Your task to perform on an android device: turn on data saver in the chrome app Image 0: 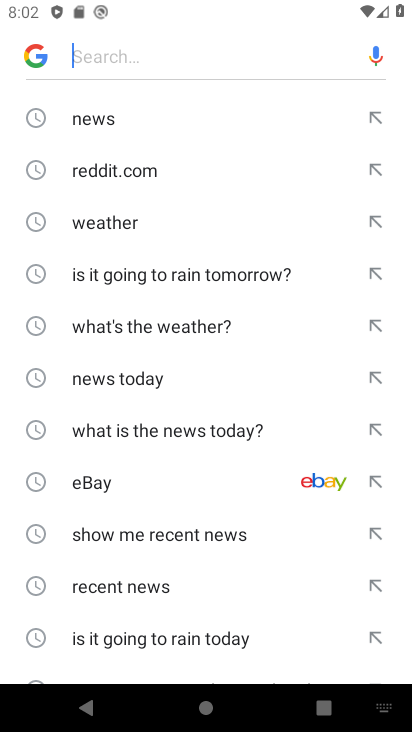
Step 0: press home button
Your task to perform on an android device: turn on data saver in the chrome app Image 1: 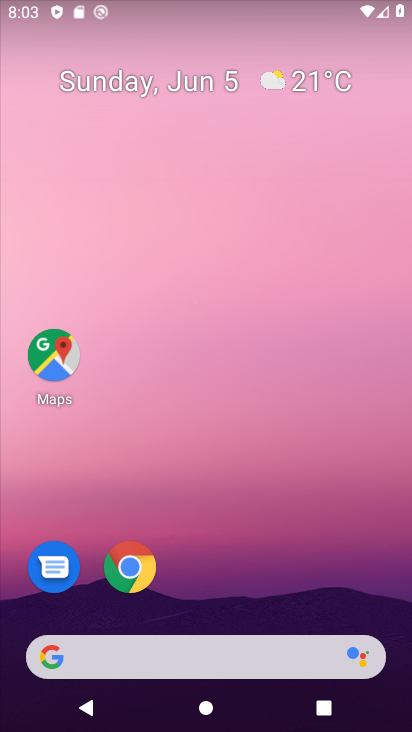
Step 1: click (119, 570)
Your task to perform on an android device: turn on data saver in the chrome app Image 2: 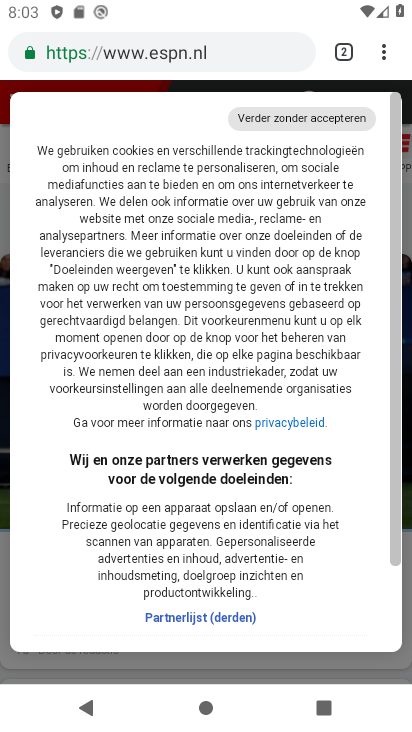
Step 2: click (378, 52)
Your task to perform on an android device: turn on data saver in the chrome app Image 3: 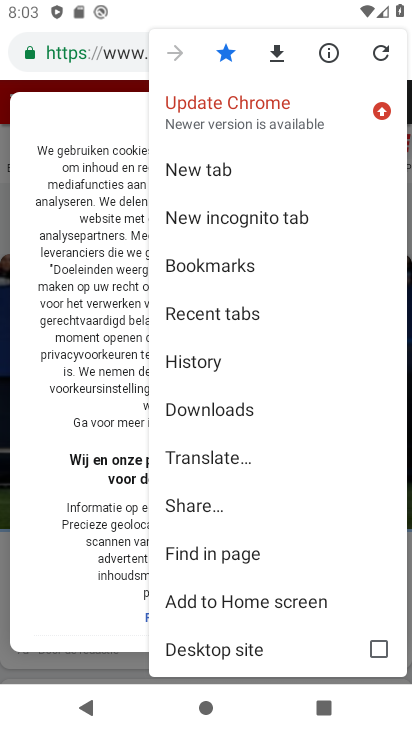
Step 3: drag from (223, 639) to (219, 340)
Your task to perform on an android device: turn on data saver in the chrome app Image 4: 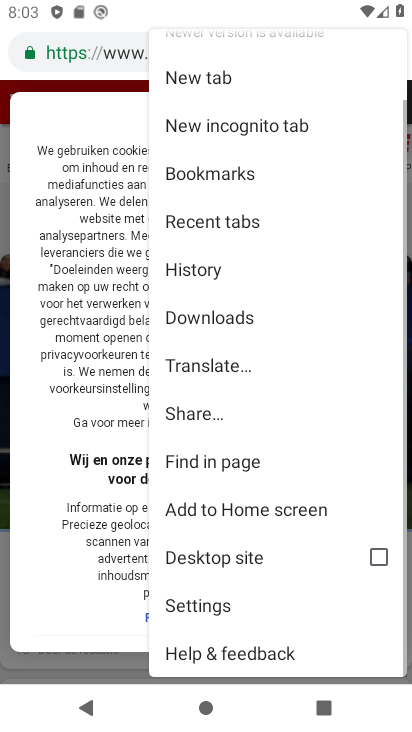
Step 4: click (211, 608)
Your task to perform on an android device: turn on data saver in the chrome app Image 5: 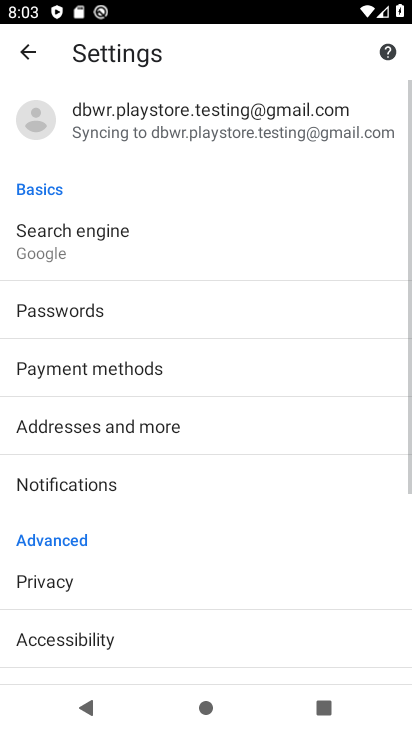
Step 5: drag from (161, 652) to (152, 399)
Your task to perform on an android device: turn on data saver in the chrome app Image 6: 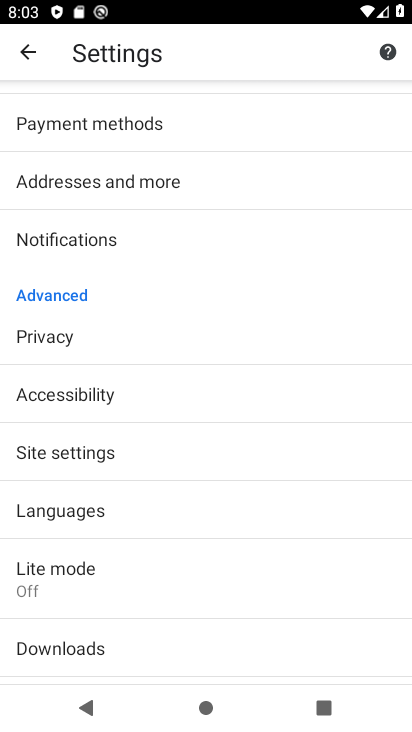
Step 6: click (56, 567)
Your task to perform on an android device: turn on data saver in the chrome app Image 7: 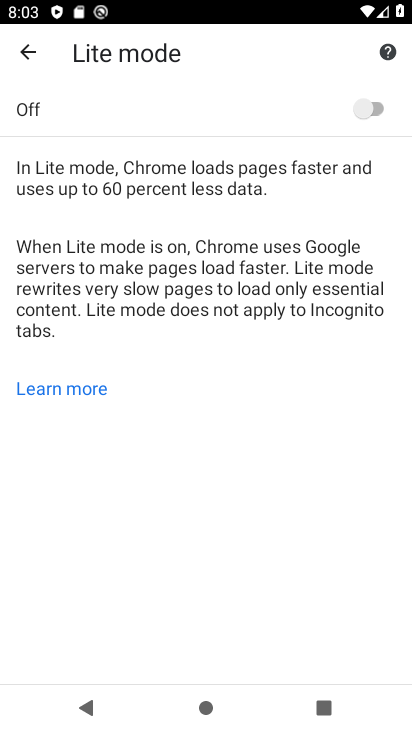
Step 7: click (370, 109)
Your task to perform on an android device: turn on data saver in the chrome app Image 8: 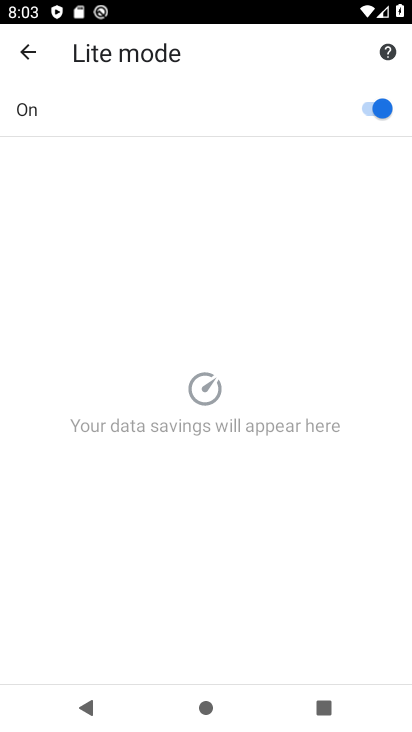
Step 8: task complete